Your task to perform on an android device: Go to location settings Image 0: 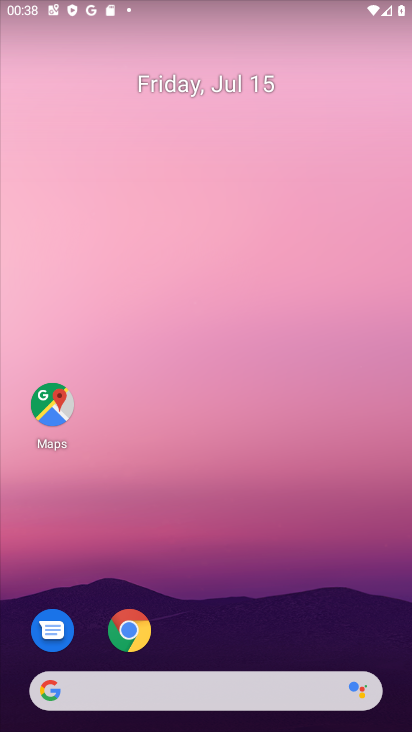
Step 0: drag from (268, 621) to (290, 309)
Your task to perform on an android device: Go to location settings Image 1: 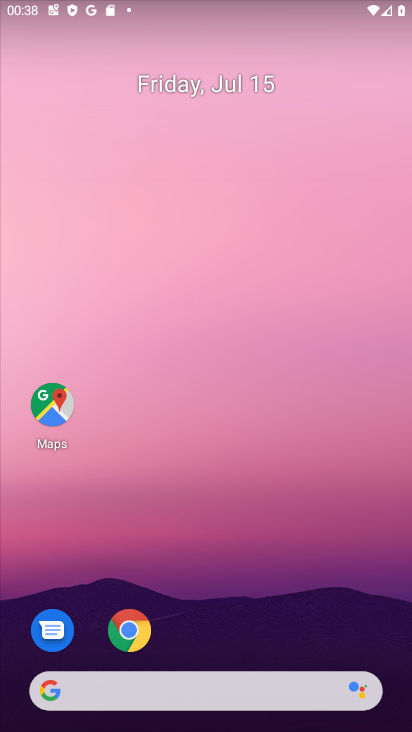
Step 1: drag from (225, 639) to (197, 88)
Your task to perform on an android device: Go to location settings Image 2: 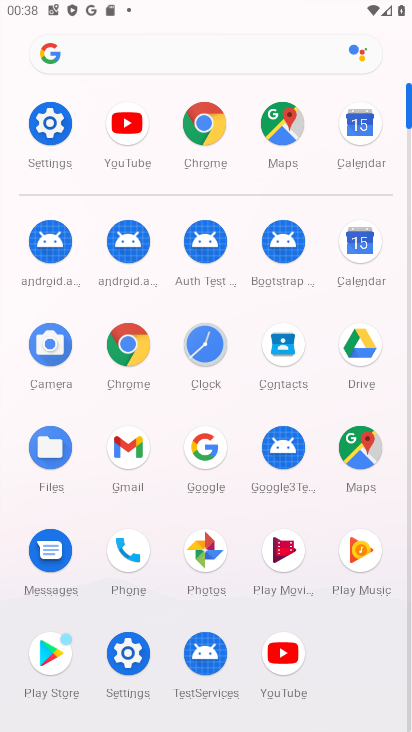
Step 2: click (65, 153)
Your task to perform on an android device: Go to location settings Image 3: 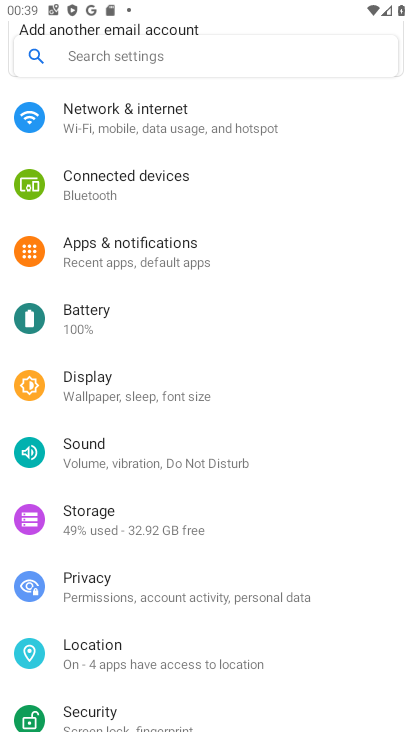
Step 3: click (111, 656)
Your task to perform on an android device: Go to location settings Image 4: 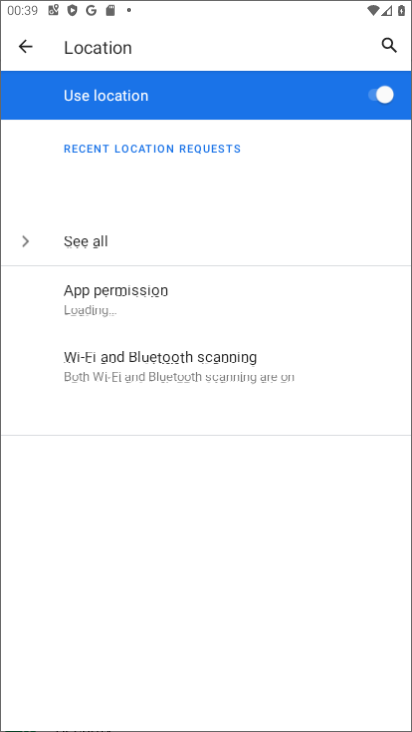
Step 4: task complete